Your task to perform on an android device: Open the calendar and show me this week's events? Image 0: 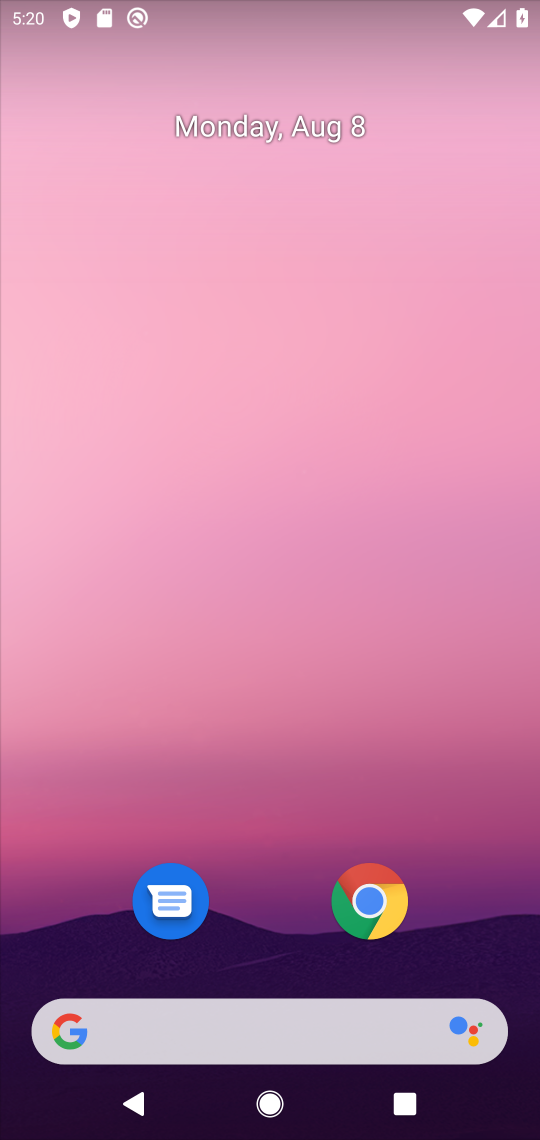
Step 0: drag from (494, 873) to (445, 79)
Your task to perform on an android device: Open the calendar and show me this week's events? Image 1: 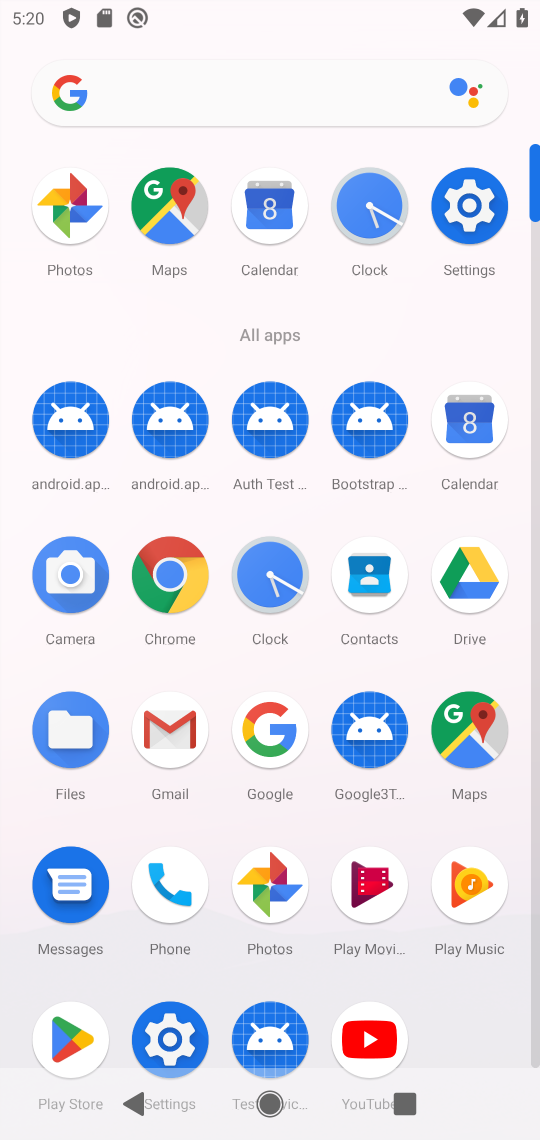
Step 1: click (258, 213)
Your task to perform on an android device: Open the calendar and show me this week's events? Image 2: 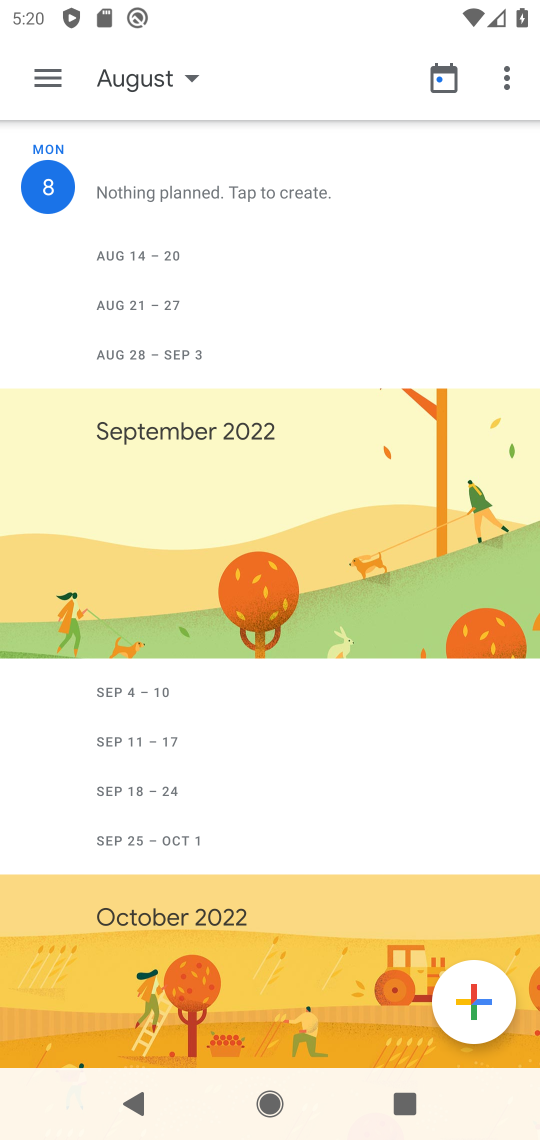
Step 2: click (47, 90)
Your task to perform on an android device: Open the calendar and show me this week's events? Image 3: 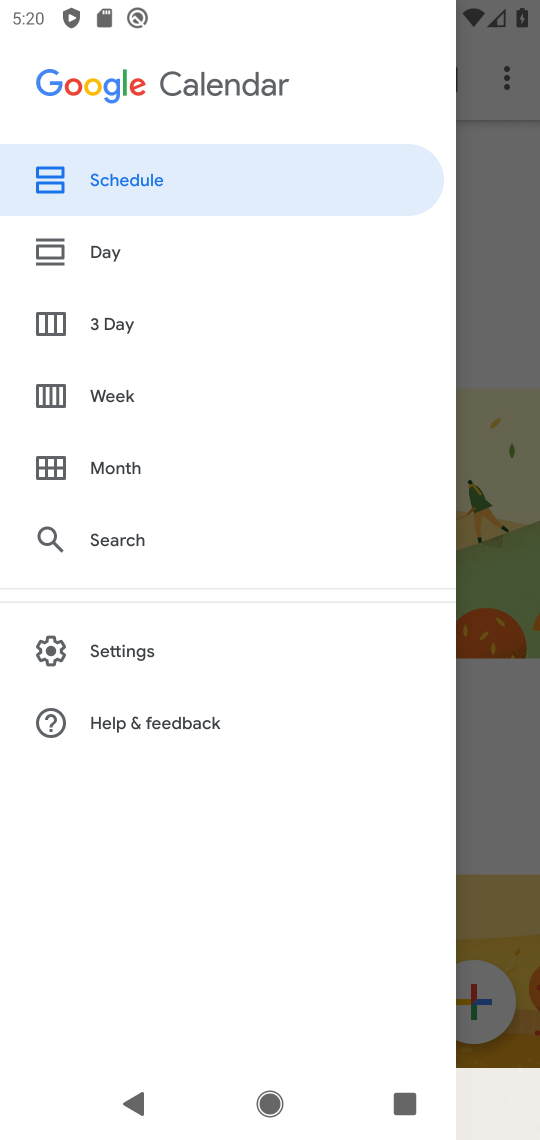
Step 3: click (116, 401)
Your task to perform on an android device: Open the calendar and show me this week's events? Image 4: 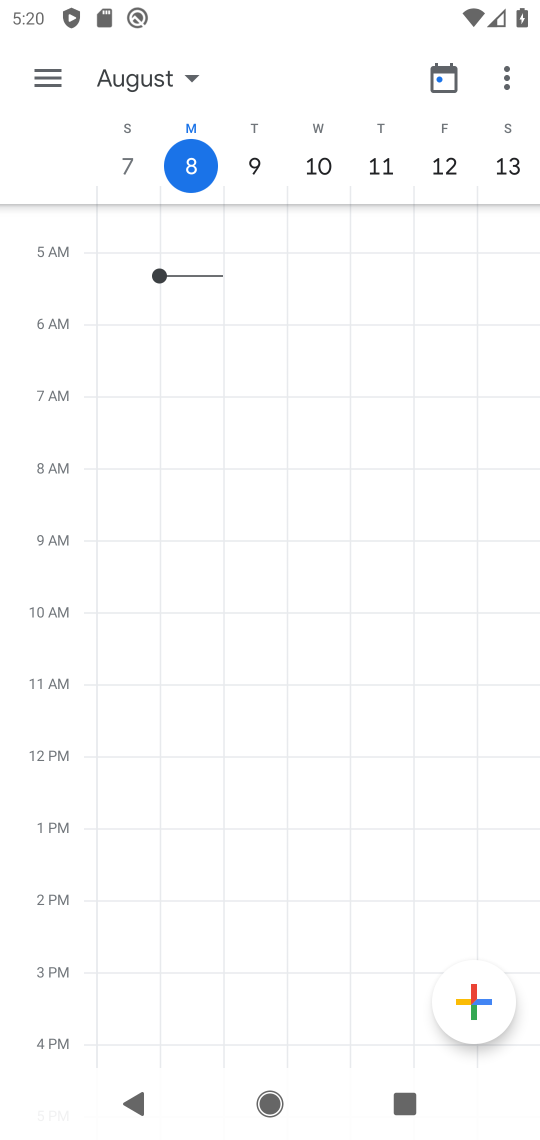
Step 4: click (66, 82)
Your task to perform on an android device: Open the calendar and show me this week's events? Image 5: 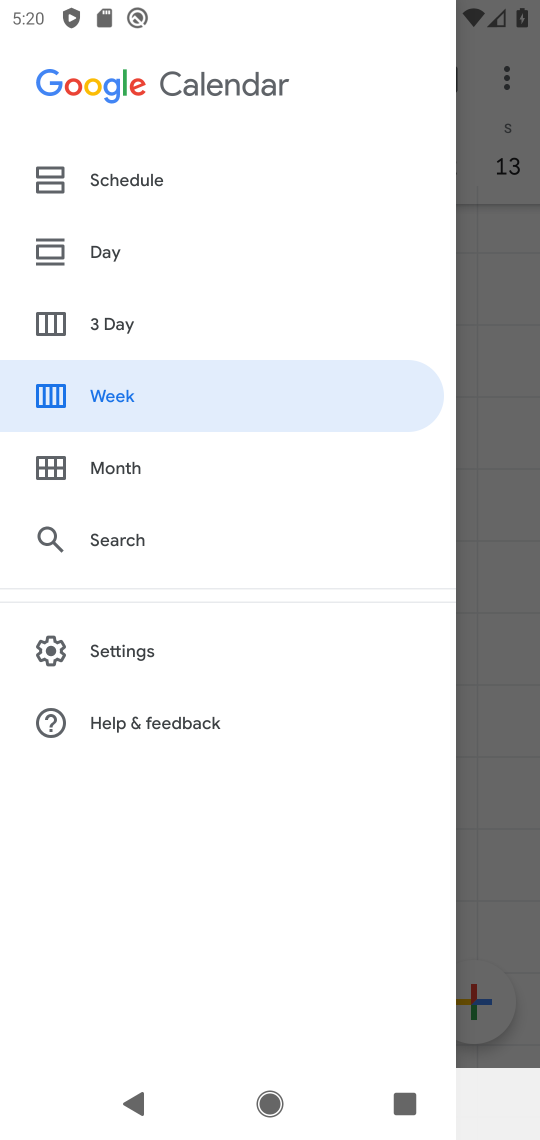
Step 5: click (156, 391)
Your task to perform on an android device: Open the calendar and show me this week's events? Image 6: 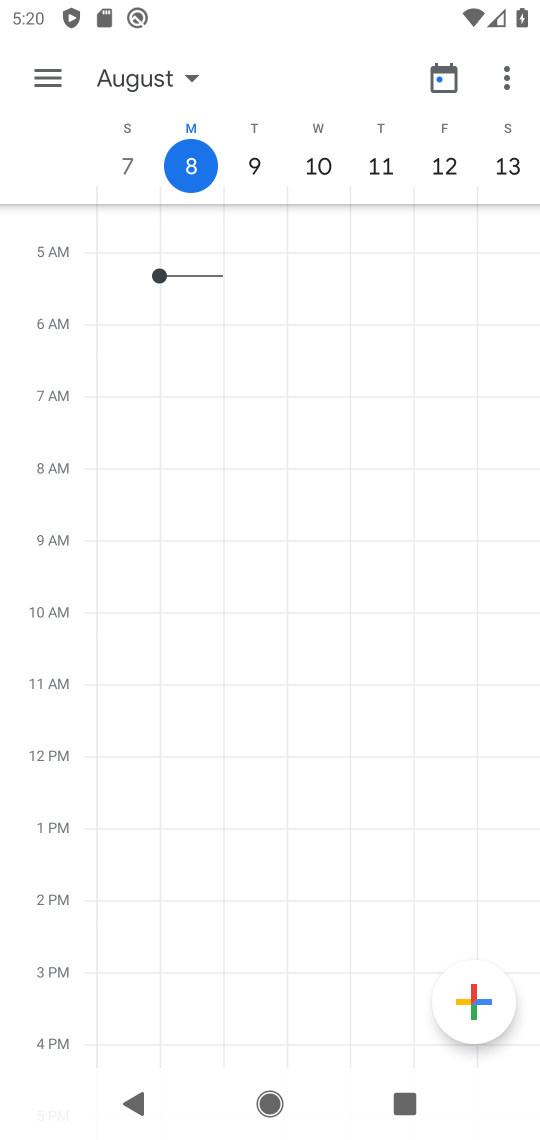
Step 6: task complete